Your task to perform on an android device: Search for Italian restaurants on Maps Image 0: 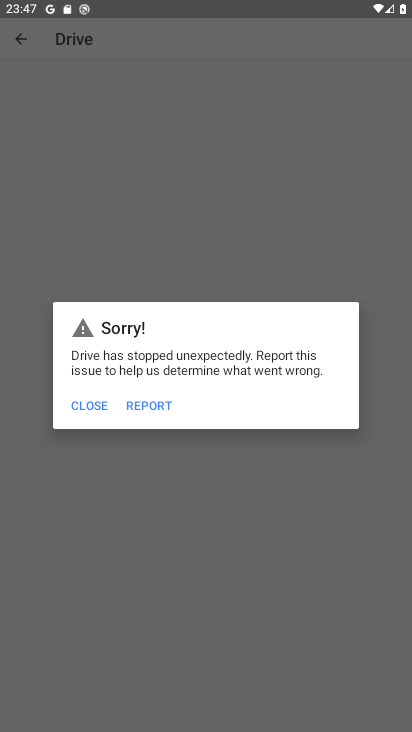
Step 0: press home button
Your task to perform on an android device: Search for Italian restaurants on Maps Image 1: 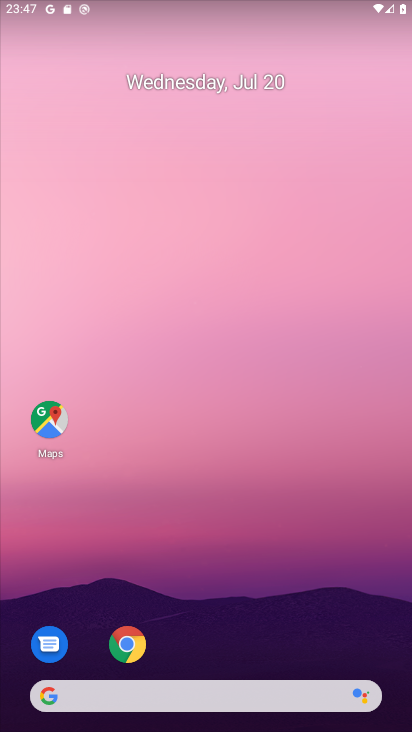
Step 1: click (48, 428)
Your task to perform on an android device: Search for Italian restaurants on Maps Image 2: 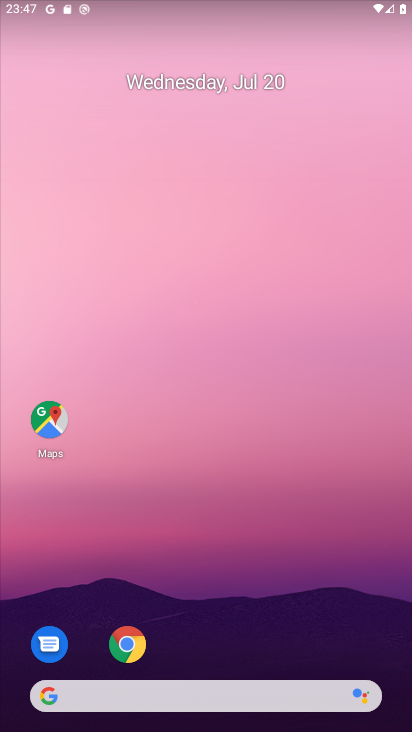
Step 2: click (48, 428)
Your task to perform on an android device: Search for Italian restaurants on Maps Image 3: 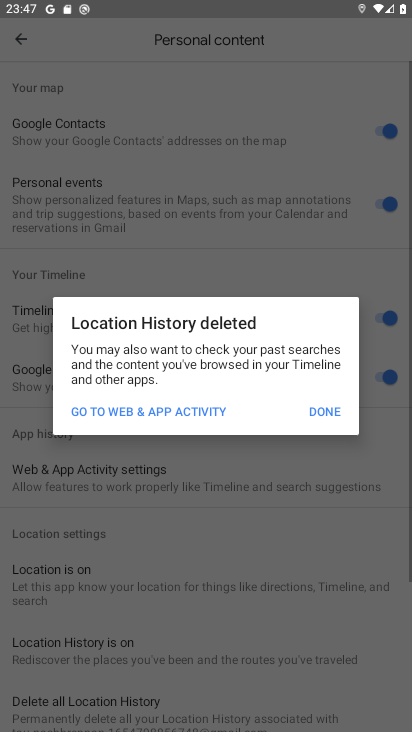
Step 3: click (327, 411)
Your task to perform on an android device: Search for Italian restaurants on Maps Image 4: 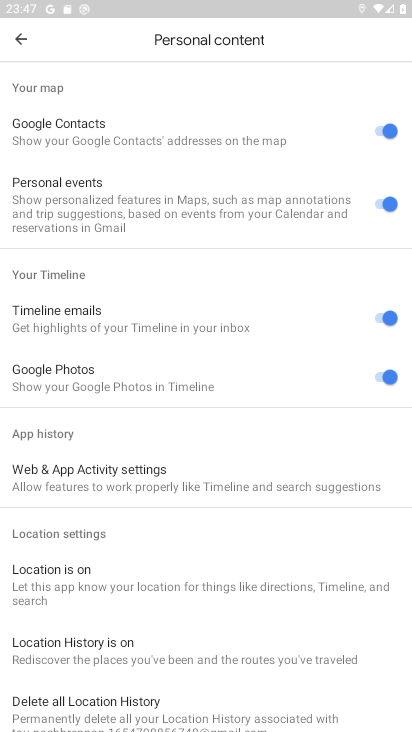
Step 4: click (26, 46)
Your task to perform on an android device: Search for Italian restaurants on Maps Image 5: 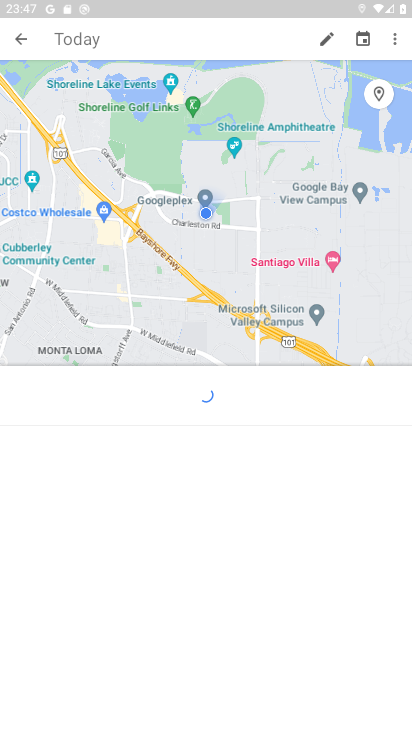
Step 5: click (26, 46)
Your task to perform on an android device: Search for Italian restaurants on Maps Image 6: 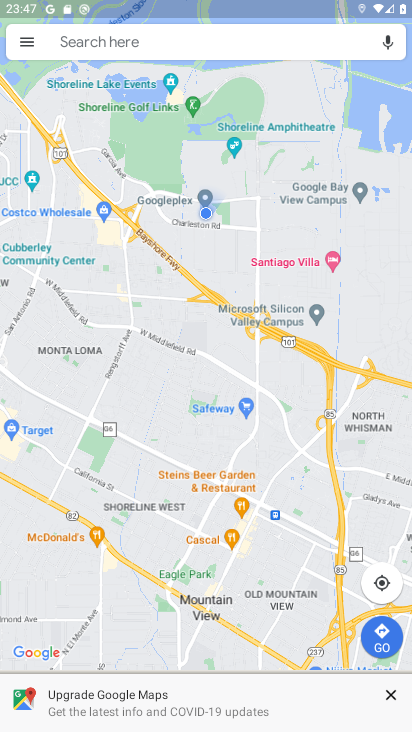
Step 6: click (154, 39)
Your task to perform on an android device: Search for Italian restaurants on Maps Image 7: 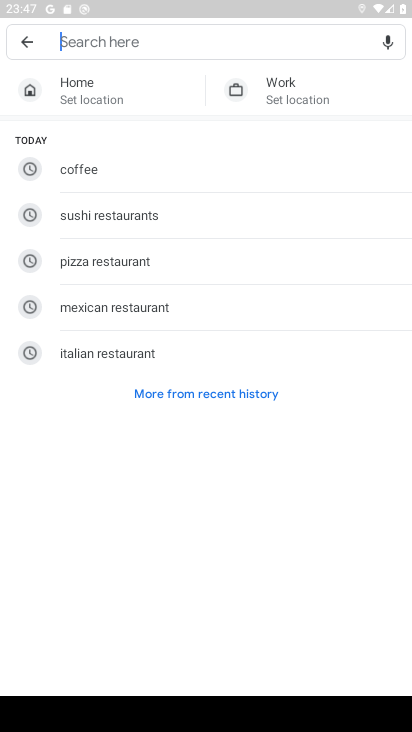
Step 7: click (172, 353)
Your task to perform on an android device: Search for Italian restaurants on Maps Image 8: 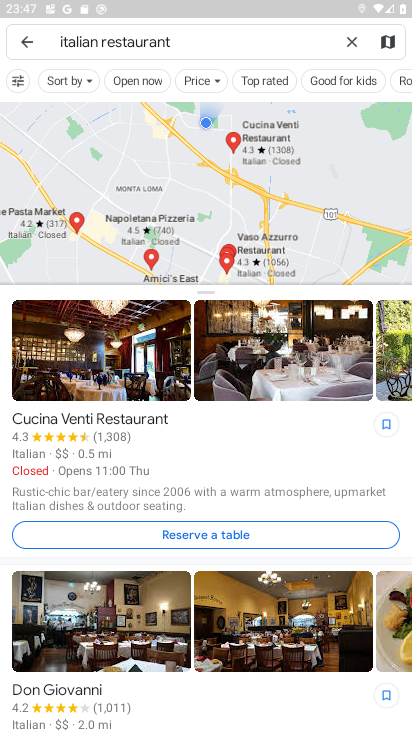
Step 8: task complete